Your task to perform on an android device: turn on bluetooth scan Image 0: 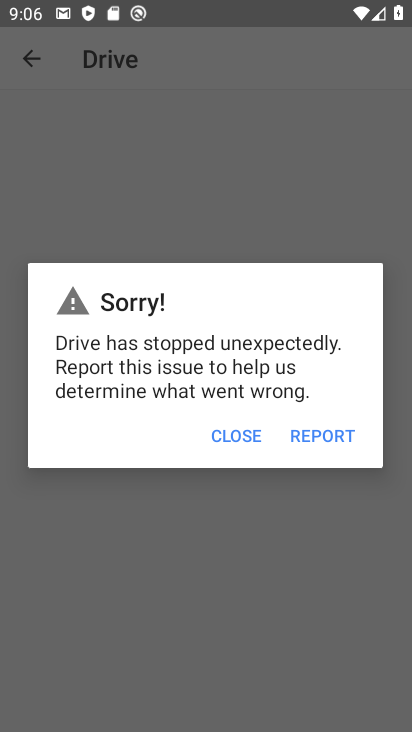
Step 0: press home button
Your task to perform on an android device: turn on bluetooth scan Image 1: 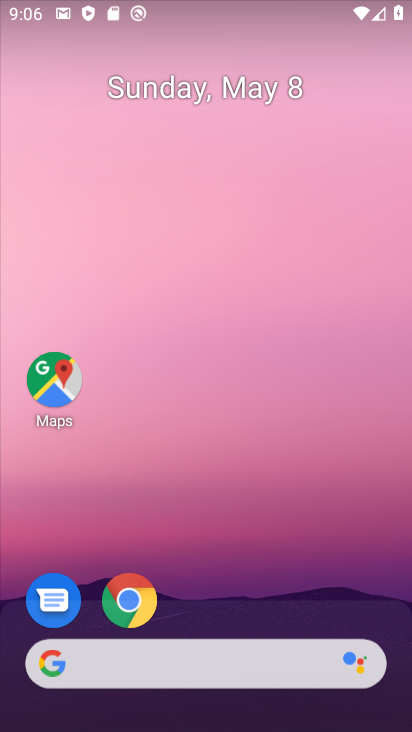
Step 1: drag from (299, 615) to (176, 8)
Your task to perform on an android device: turn on bluetooth scan Image 2: 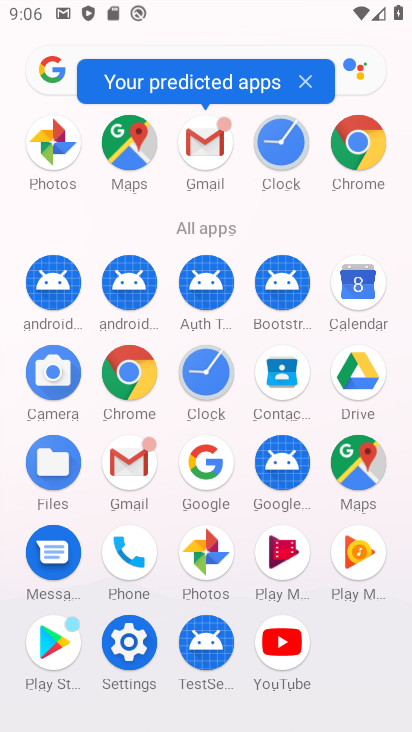
Step 2: click (136, 645)
Your task to perform on an android device: turn on bluetooth scan Image 3: 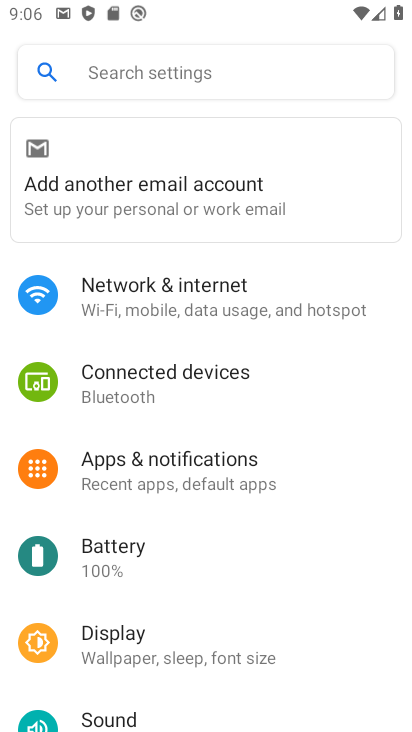
Step 3: drag from (327, 666) to (287, 315)
Your task to perform on an android device: turn on bluetooth scan Image 4: 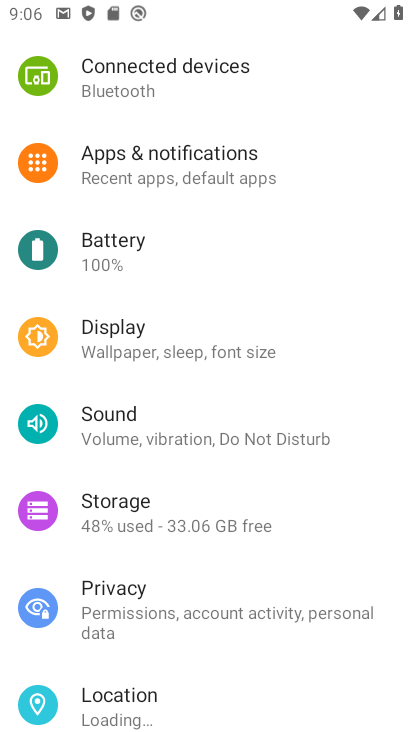
Step 4: drag from (318, 581) to (284, 363)
Your task to perform on an android device: turn on bluetooth scan Image 5: 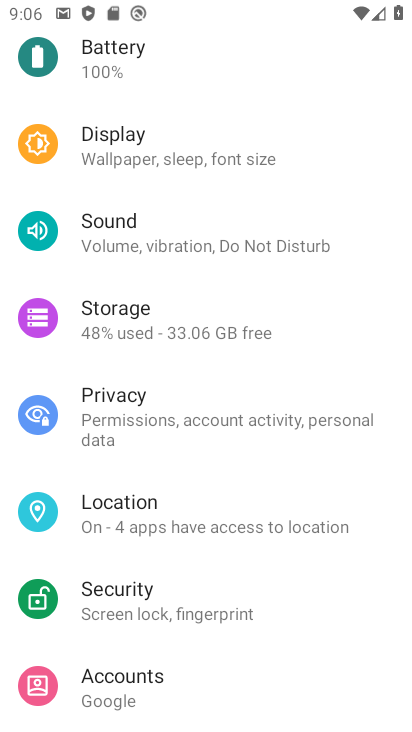
Step 5: click (132, 510)
Your task to perform on an android device: turn on bluetooth scan Image 6: 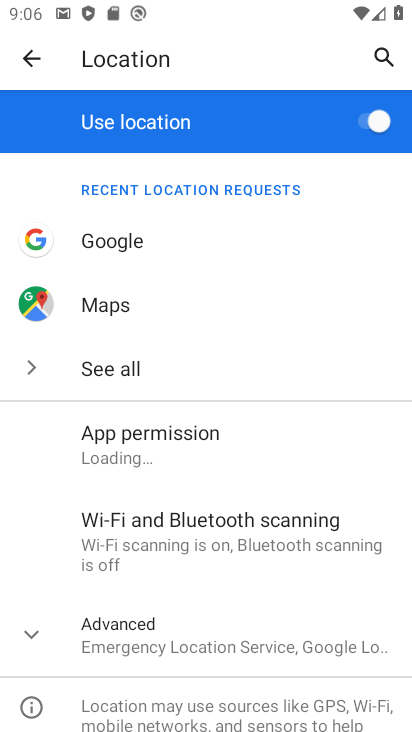
Step 6: click (186, 536)
Your task to perform on an android device: turn on bluetooth scan Image 7: 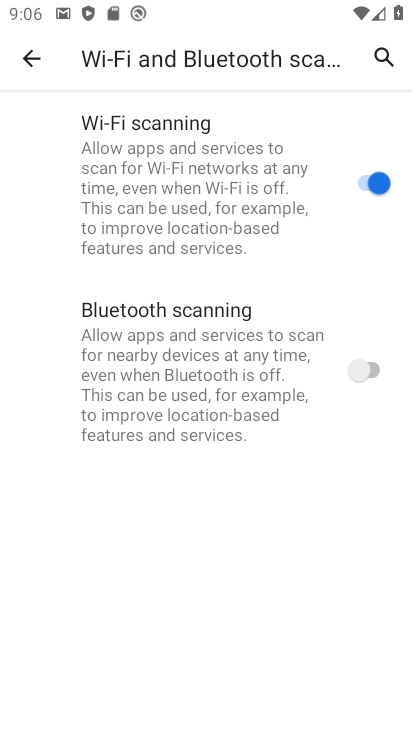
Step 7: click (365, 375)
Your task to perform on an android device: turn on bluetooth scan Image 8: 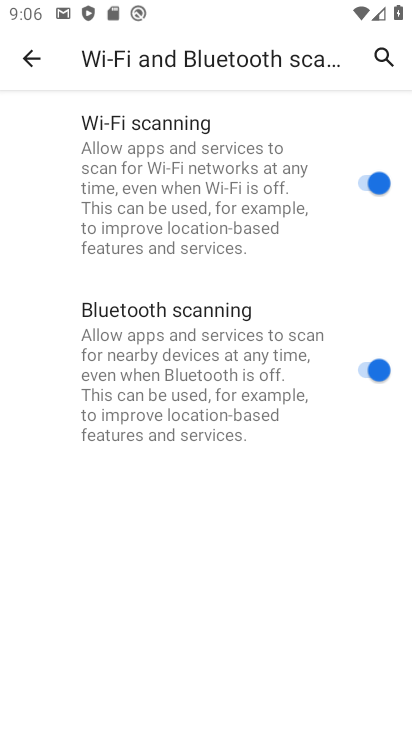
Step 8: task complete